Your task to perform on an android device: turn off data saver in the chrome app Image 0: 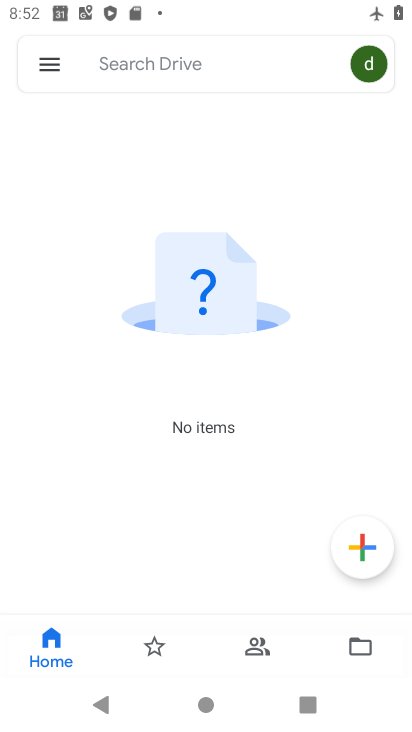
Step 0: press home button
Your task to perform on an android device: turn off data saver in the chrome app Image 1: 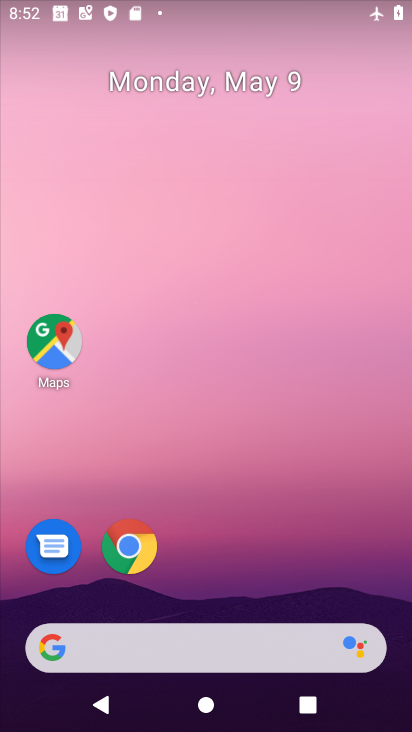
Step 1: drag from (266, 703) to (304, 158)
Your task to perform on an android device: turn off data saver in the chrome app Image 2: 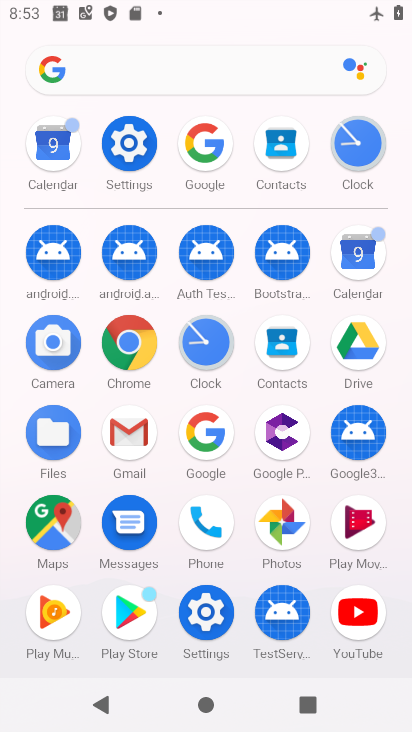
Step 2: click (130, 347)
Your task to perform on an android device: turn off data saver in the chrome app Image 3: 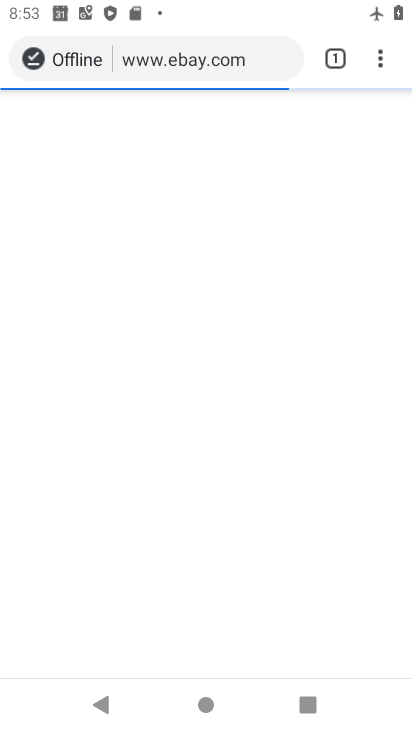
Step 3: click (372, 60)
Your task to perform on an android device: turn off data saver in the chrome app Image 4: 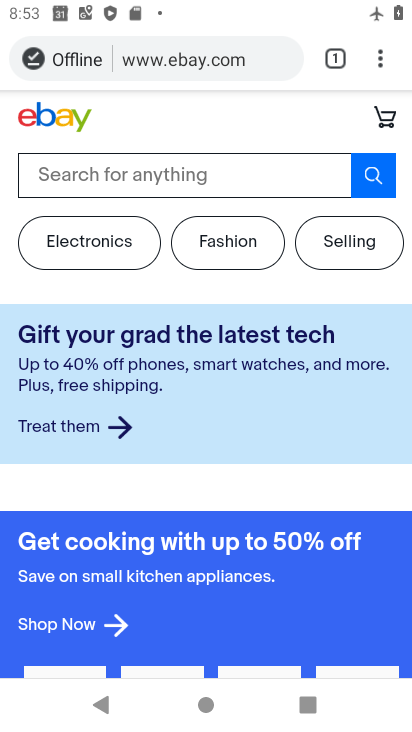
Step 4: click (385, 64)
Your task to perform on an android device: turn off data saver in the chrome app Image 5: 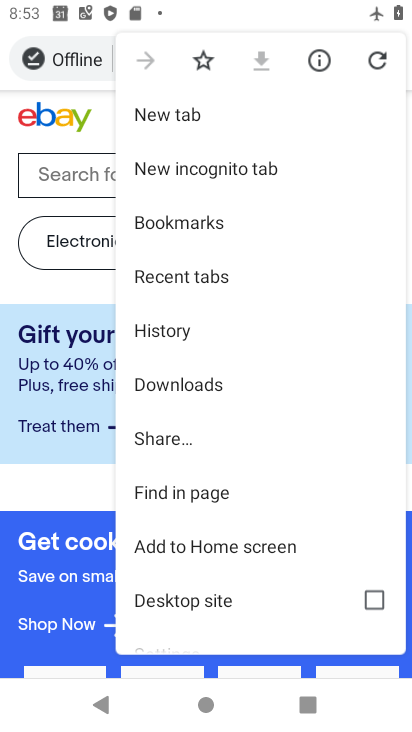
Step 5: drag from (204, 624) to (176, 171)
Your task to perform on an android device: turn off data saver in the chrome app Image 6: 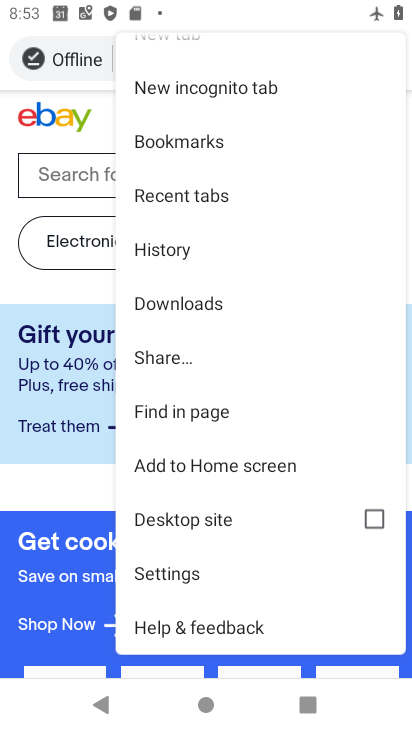
Step 6: click (165, 580)
Your task to perform on an android device: turn off data saver in the chrome app Image 7: 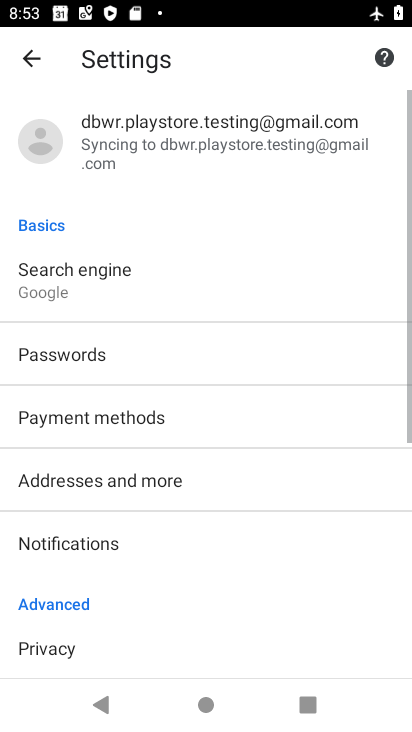
Step 7: drag from (287, 641) to (234, 97)
Your task to perform on an android device: turn off data saver in the chrome app Image 8: 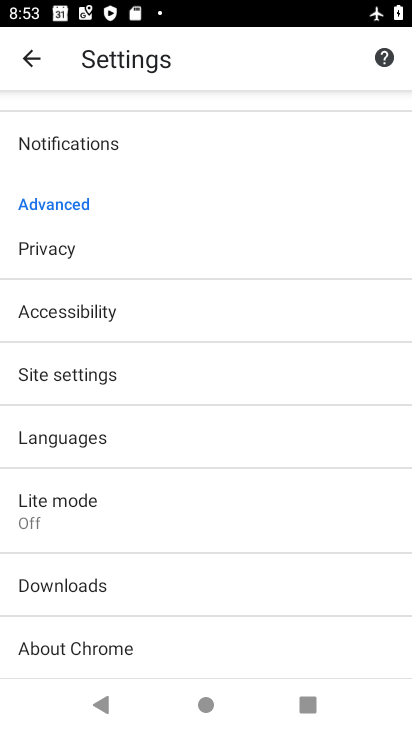
Step 8: click (41, 515)
Your task to perform on an android device: turn off data saver in the chrome app Image 9: 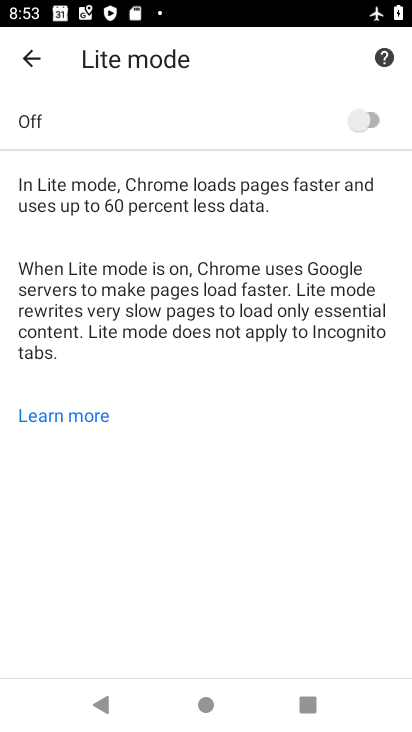
Step 9: task complete